Your task to perform on an android device: turn on data saver in the chrome app Image 0: 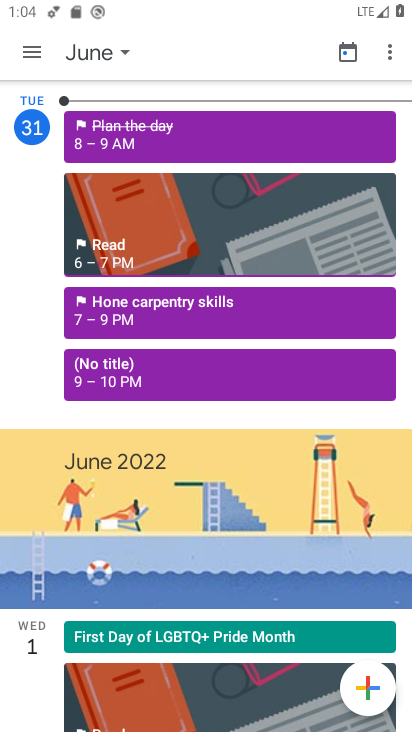
Step 0: press home button
Your task to perform on an android device: turn on data saver in the chrome app Image 1: 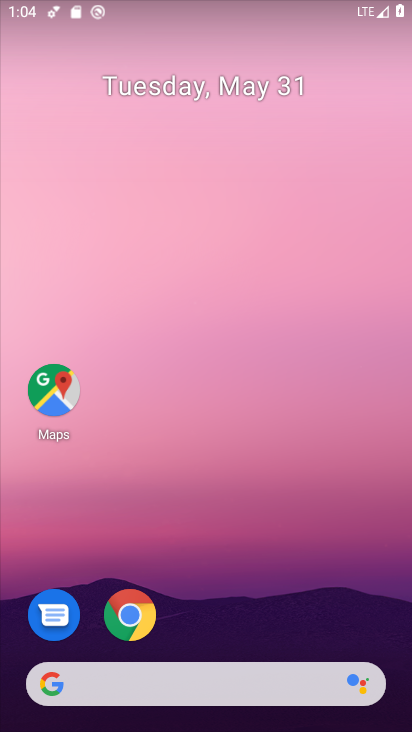
Step 1: drag from (204, 462) to (220, 37)
Your task to perform on an android device: turn on data saver in the chrome app Image 2: 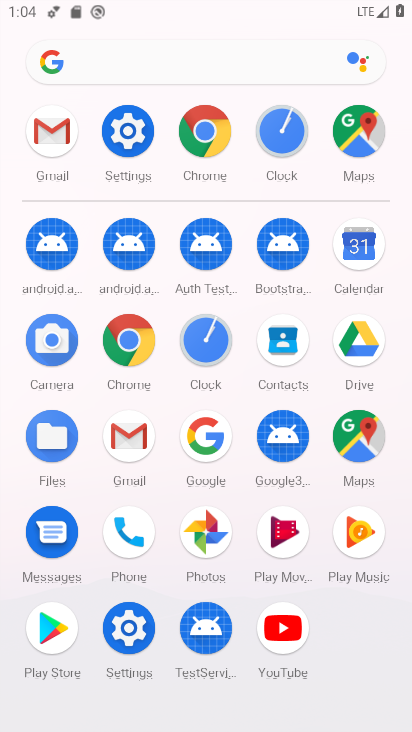
Step 2: click (124, 344)
Your task to perform on an android device: turn on data saver in the chrome app Image 3: 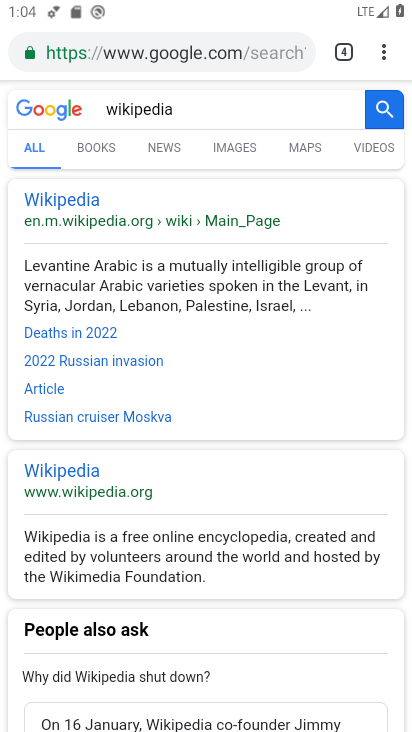
Step 3: click (386, 50)
Your task to perform on an android device: turn on data saver in the chrome app Image 4: 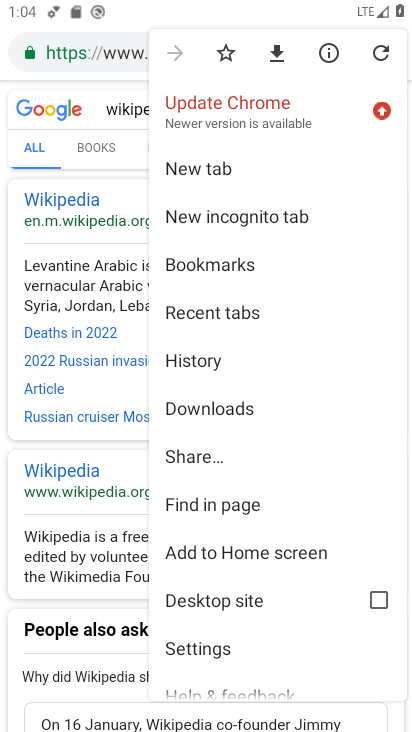
Step 4: click (213, 646)
Your task to perform on an android device: turn on data saver in the chrome app Image 5: 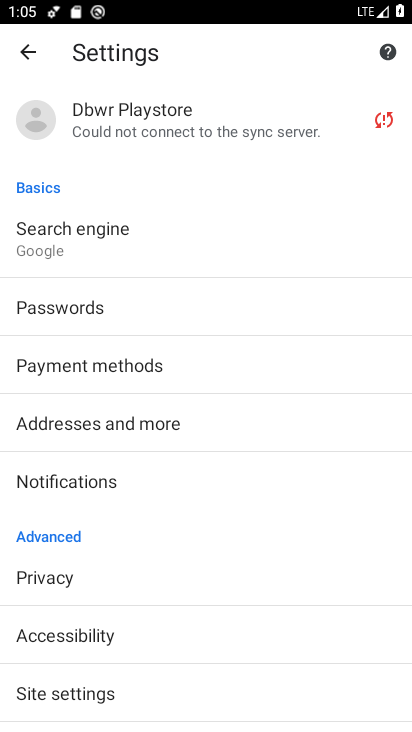
Step 5: drag from (125, 631) to (167, 246)
Your task to perform on an android device: turn on data saver in the chrome app Image 6: 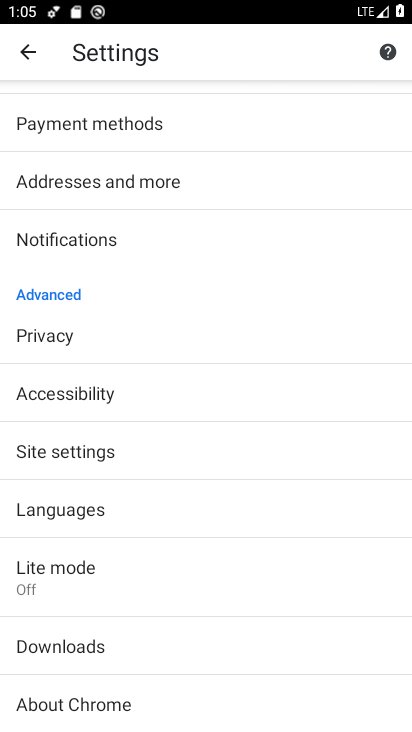
Step 6: click (110, 592)
Your task to perform on an android device: turn on data saver in the chrome app Image 7: 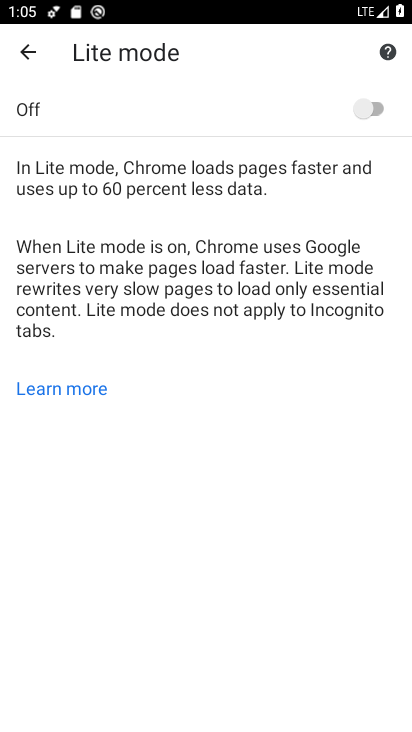
Step 7: click (379, 109)
Your task to perform on an android device: turn on data saver in the chrome app Image 8: 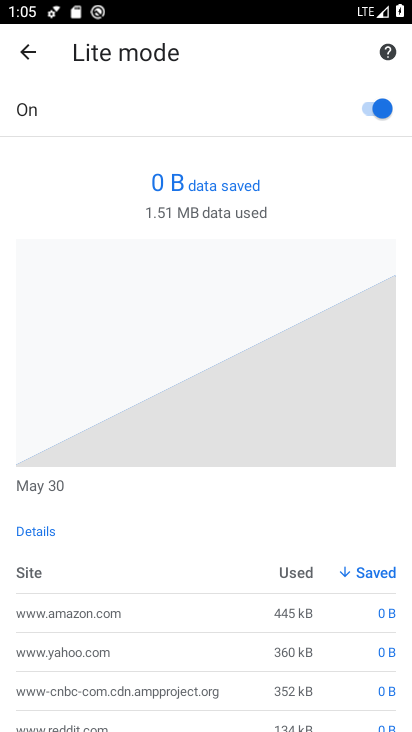
Step 8: task complete